Your task to perform on an android device: Add usb-a to usb-b to the cart on bestbuy.com, then select checkout. Image 0: 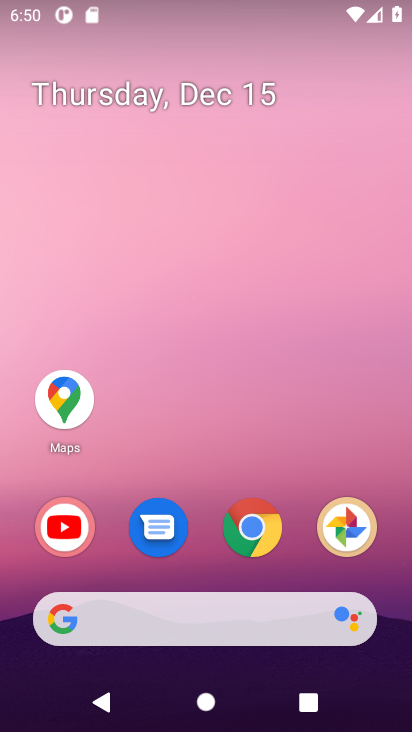
Step 0: click (250, 530)
Your task to perform on an android device: Add usb-a to usb-b to the cart on bestbuy.com, then select checkout. Image 1: 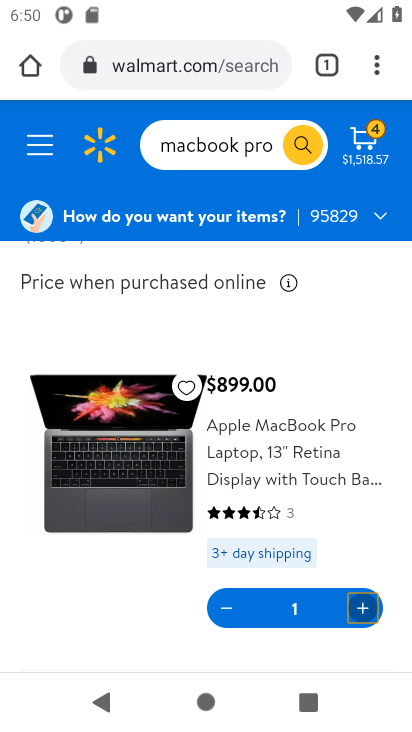
Step 1: click (236, 76)
Your task to perform on an android device: Add usb-a to usb-b to the cart on bestbuy.com, then select checkout. Image 2: 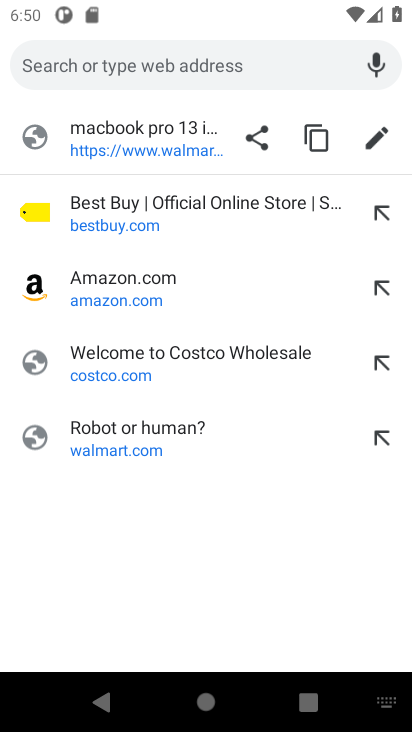
Step 2: type "bestbuy"
Your task to perform on an android device: Add usb-a to usb-b to the cart on bestbuy.com, then select checkout. Image 3: 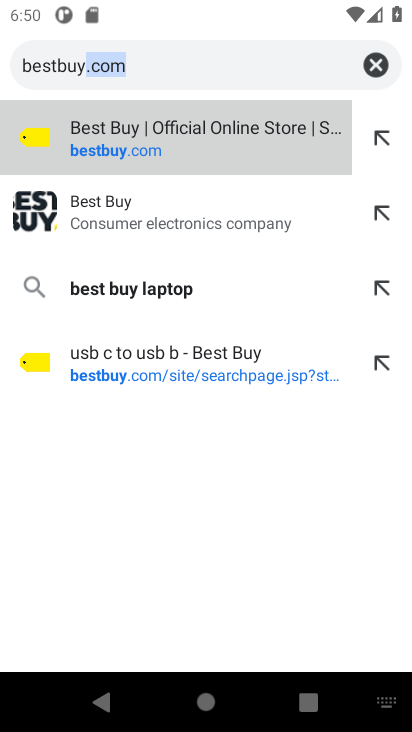
Step 3: click (134, 163)
Your task to perform on an android device: Add usb-a to usb-b to the cart on bestbuy.com, then select checkout. Image 4: 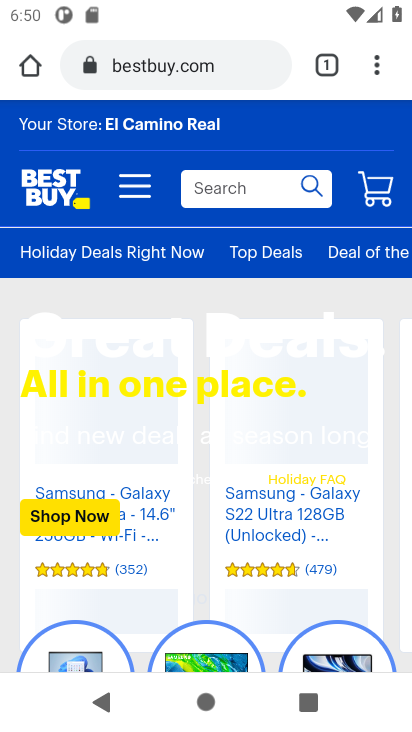
Step 4: click (224, 191)
Your task to perform on an android device: Add usb-a to usb-b to the cart on bestbuy.com, then select checkout. Image 5: 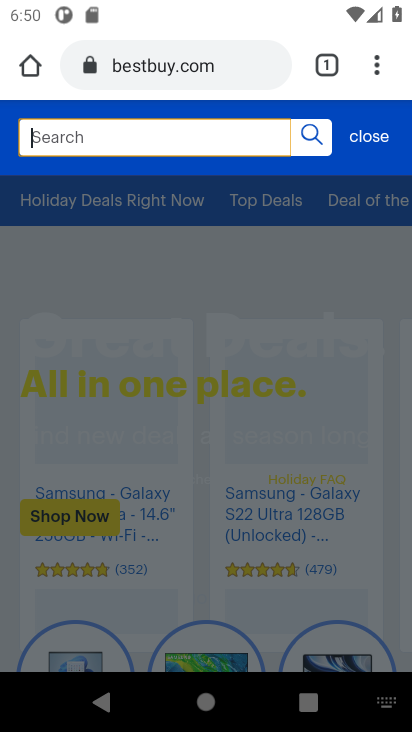
Step 5: type "usb-a to usb-b"
Your task to perform on an android device: Add usb-a to usb-b to the cart on bestbuy.com, then select checkout. Image 6: 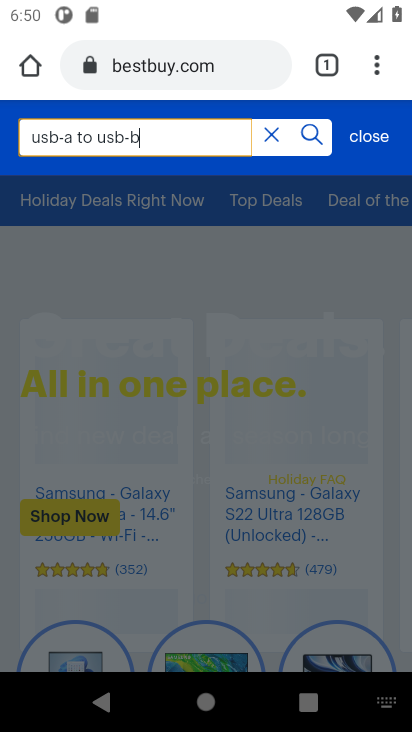
Step 6: click (325, 133)
Your task to perform on an android device: Add usb-a to usb-b to the cart on bestbuy.com, then select checkout. Image 7: 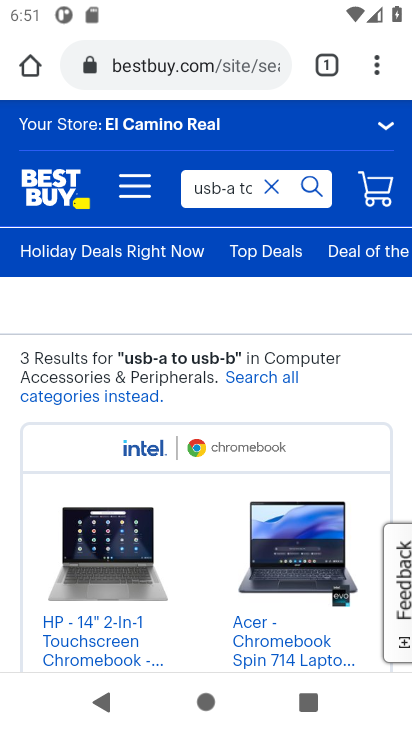
Step 7: task complete